Your task to perform on an android device: Open my contact list Image 0: 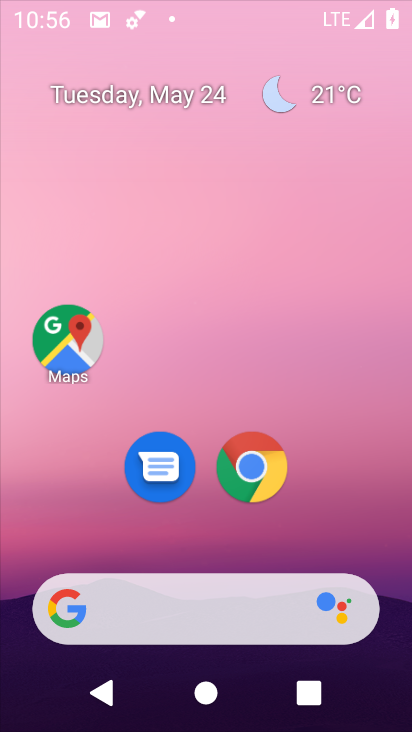
Step 0: click (292, 55)
Your task to perform on an android device: Open my contact list Image 1: 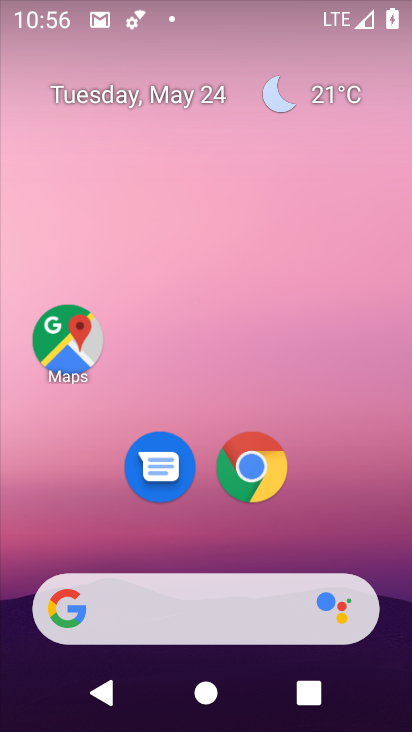
Step 1: drag from (204, 545) to (277, 52)
Your task to perform on an android device: Open my contact list Image 2: 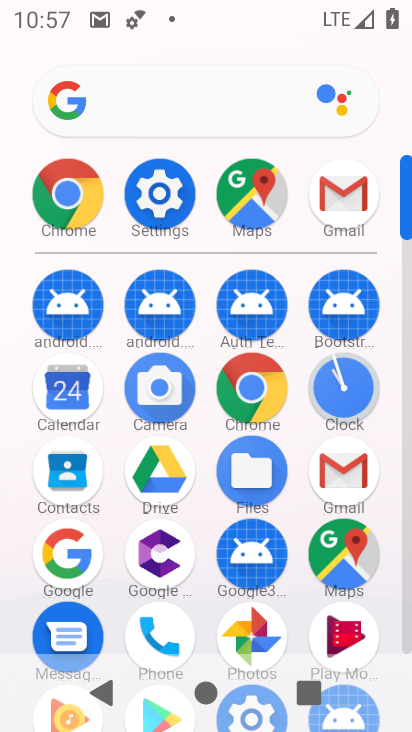
Step 2: click (143, 200)
Your task to perform on an android device: Open my contact list Image 3: 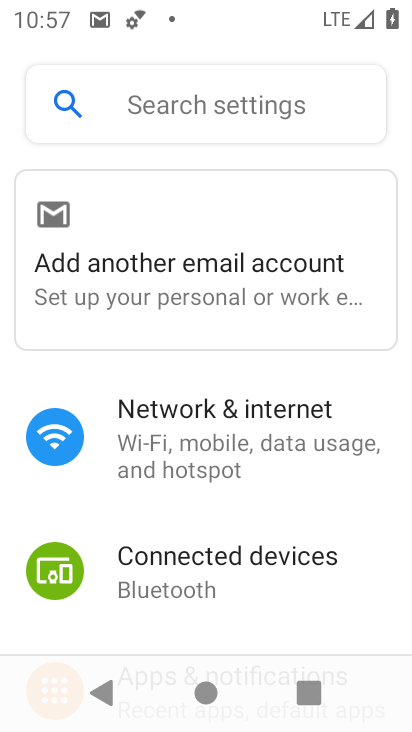
Step 3: drag from (214, 560) to (275, 199)
Your task to perform on an android device: Open my contact list Image 4: 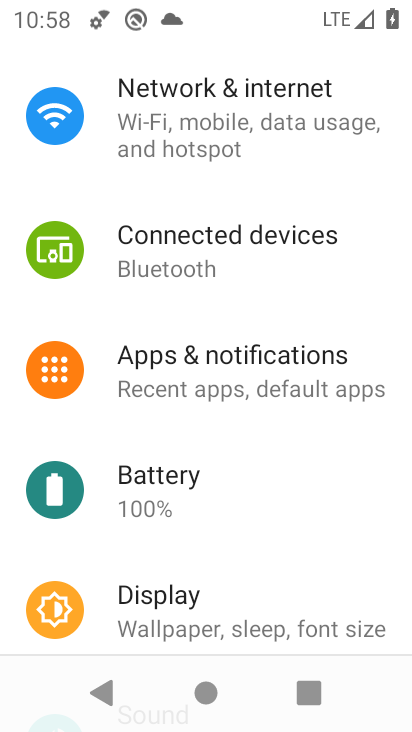
Step 4: drag from (214, 540) to (305, 176)
Your task to perform on an android device: Open my contact list Image 5: 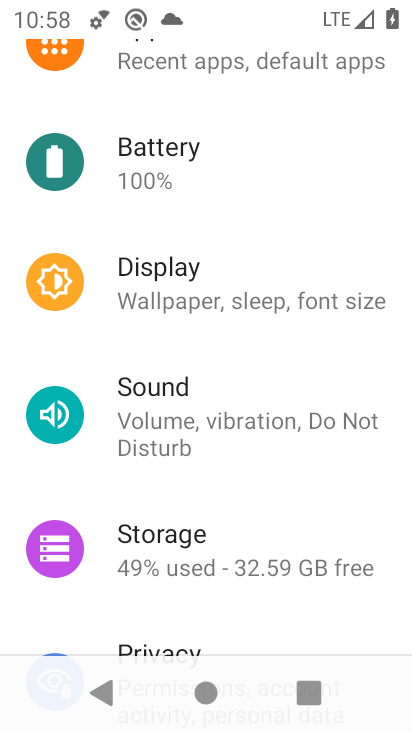
Step 5: press home button
Your task to perform on an android device: Open my contact list Image 6: 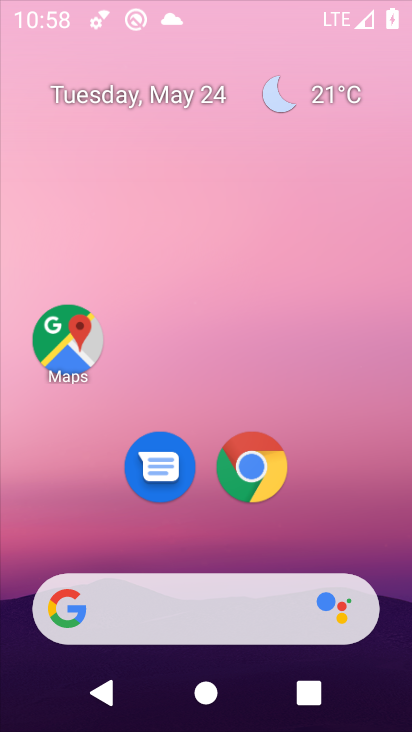
Step 6: drag from (244, 605) to (311, 17)
Your task to perform on an android device: Open my contact list Image 7: 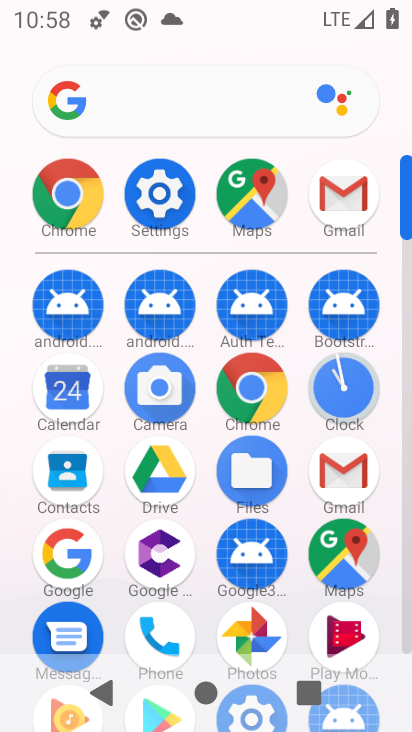
Step 7: drag from (208, 613) to (244, 210)
Your task to perform on an android device: Open my contact list Image 8: 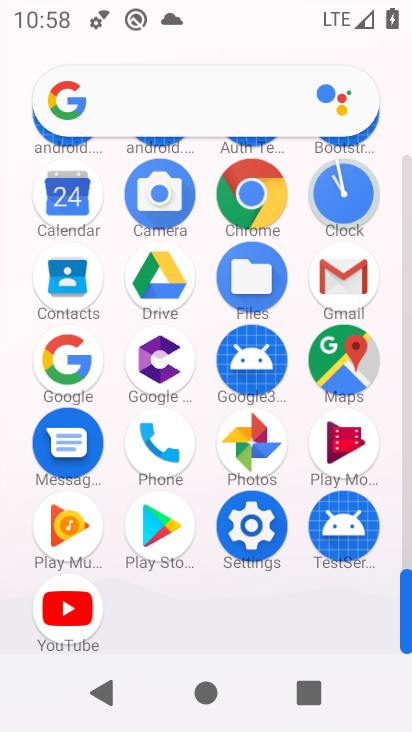
Step 8: click (50, 283)
Your task to perform on an android device: Open my contact list Image 9: 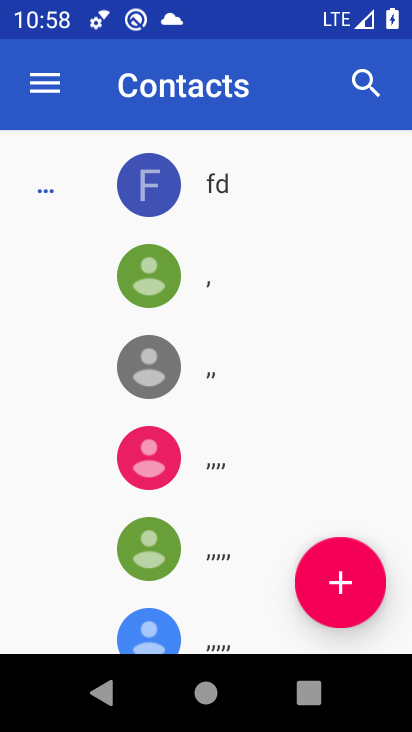
Step 9: task complete